Your task to perform on an android device: Go to Google Image 0: 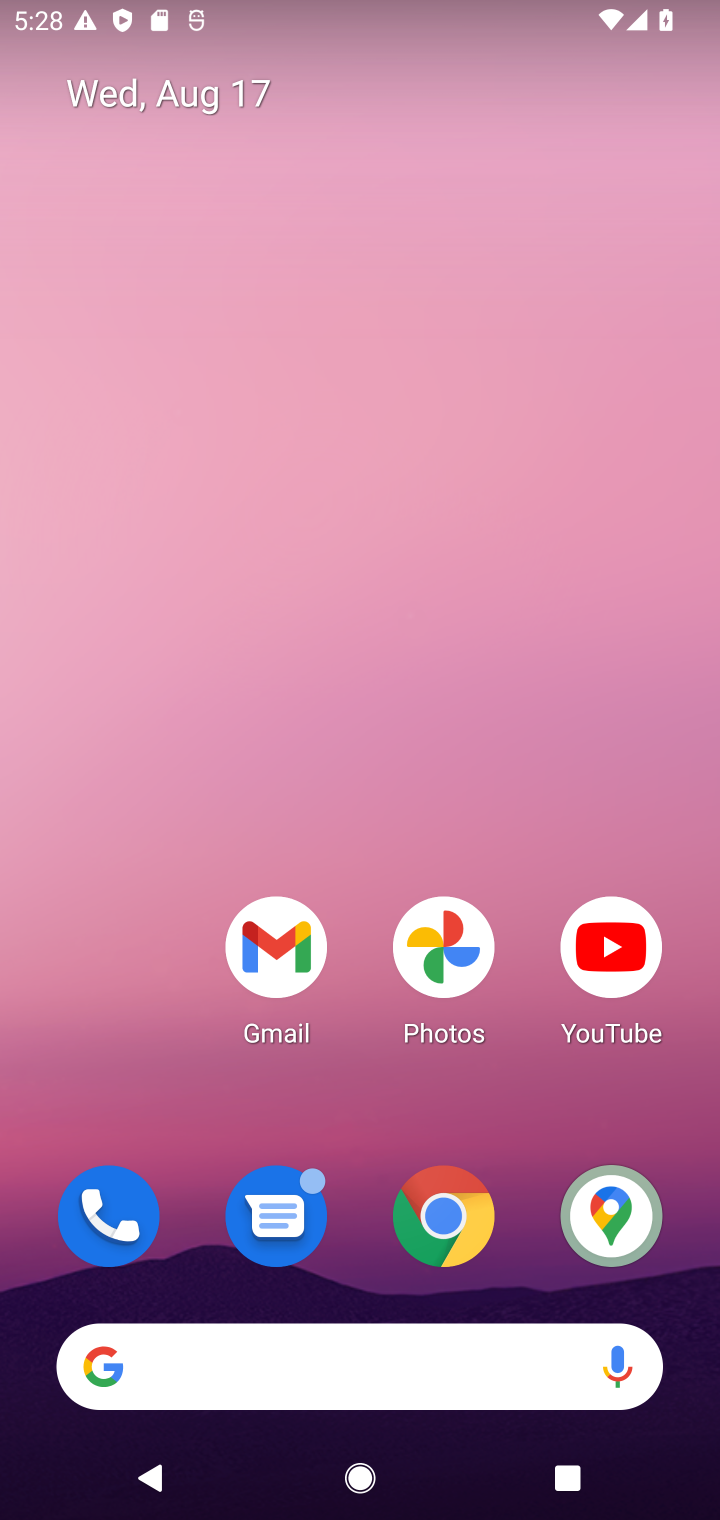
Step 0: drag from (337, 1096) to (248, 3)
Your task to perform on an android device: Go to Google Image 1: 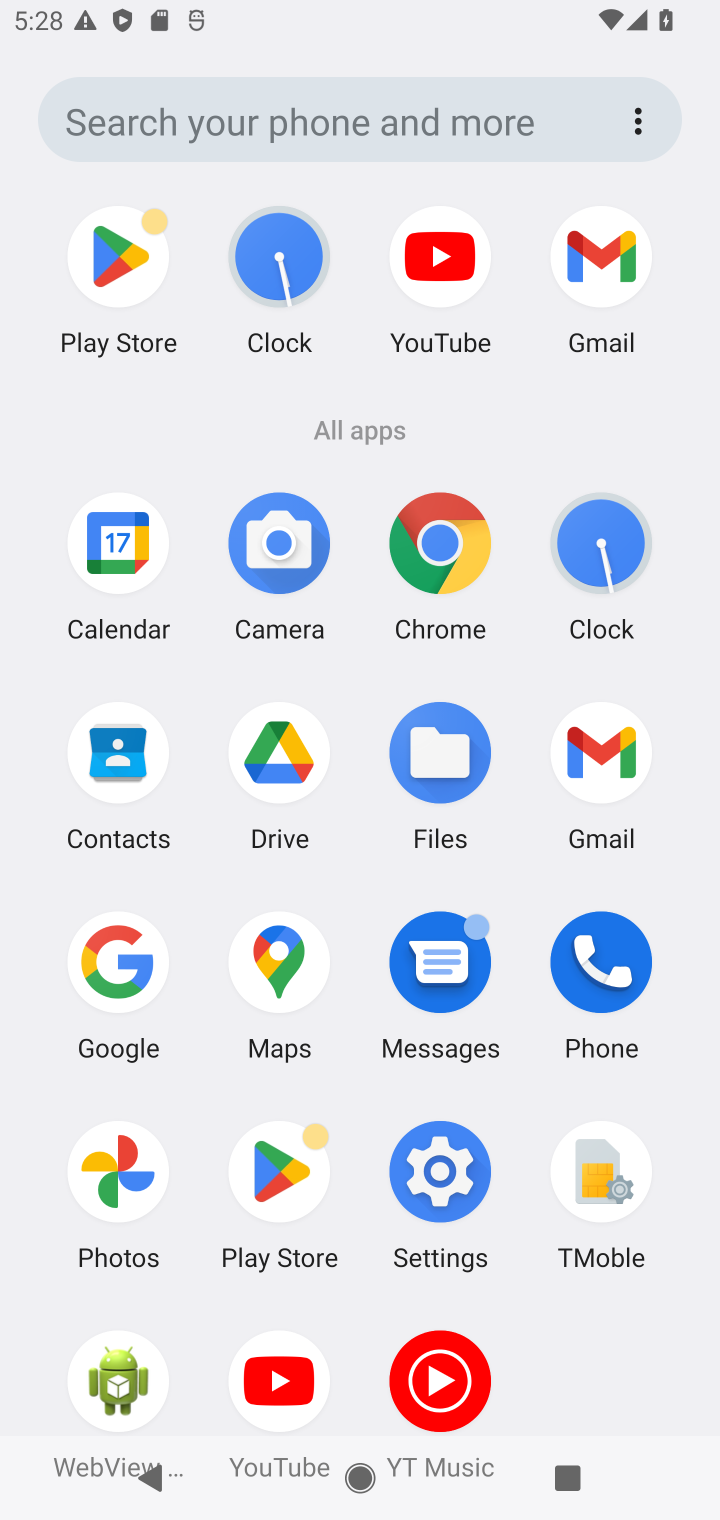
Step 1: click (106, 960)
Your task to perform on an android device: Go to Google Image 2: 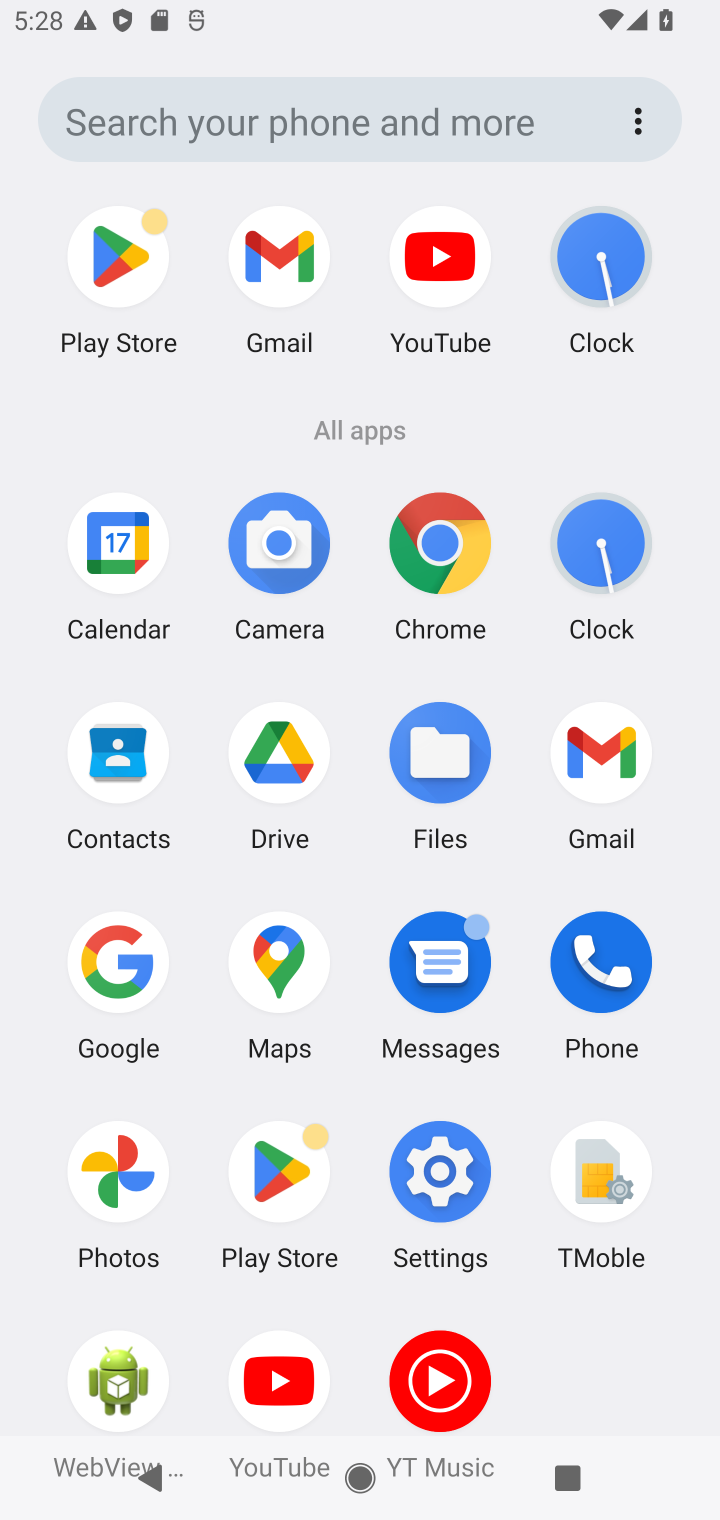
Step 2: click (95, 957)
Your task to perform on an android device: Go to Google Image 3: 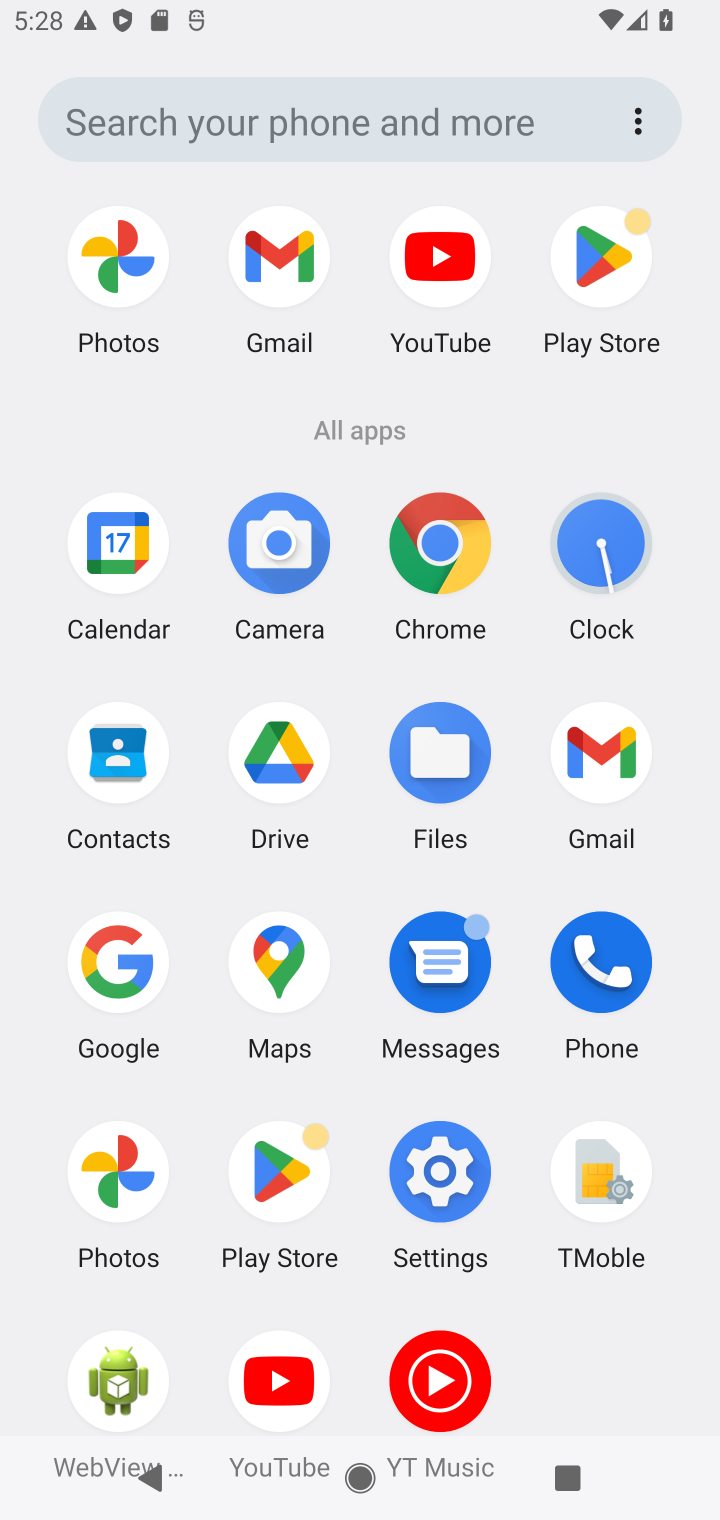
Step 3: click (108, 954)
Your task to perform on an android device: Go to Google Image 4: 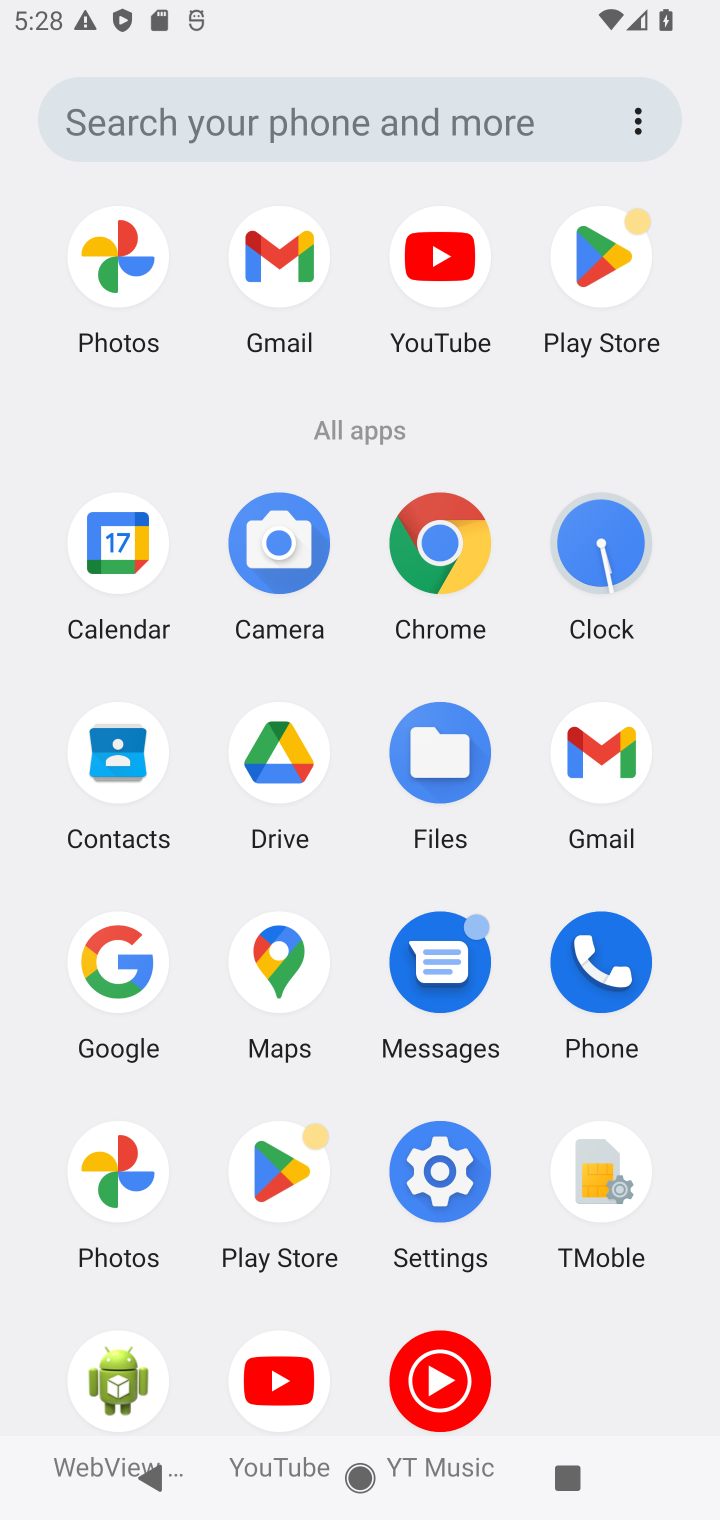
Step 4: click (108, 954)
Your task to perform on an android device: Go to Google Image 5: 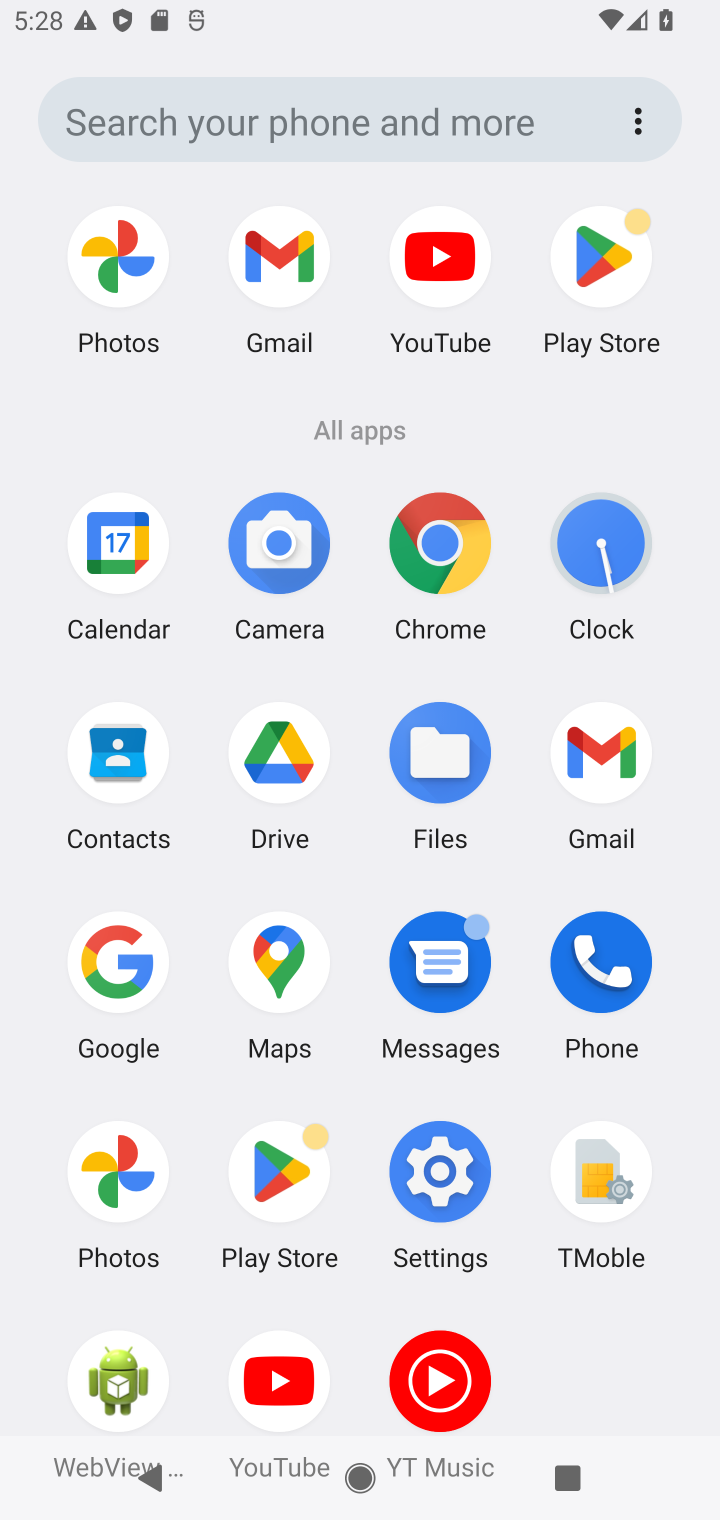
Step 5: click (108, 954)
Your task to perform on an android device: Go to Google Image 6: 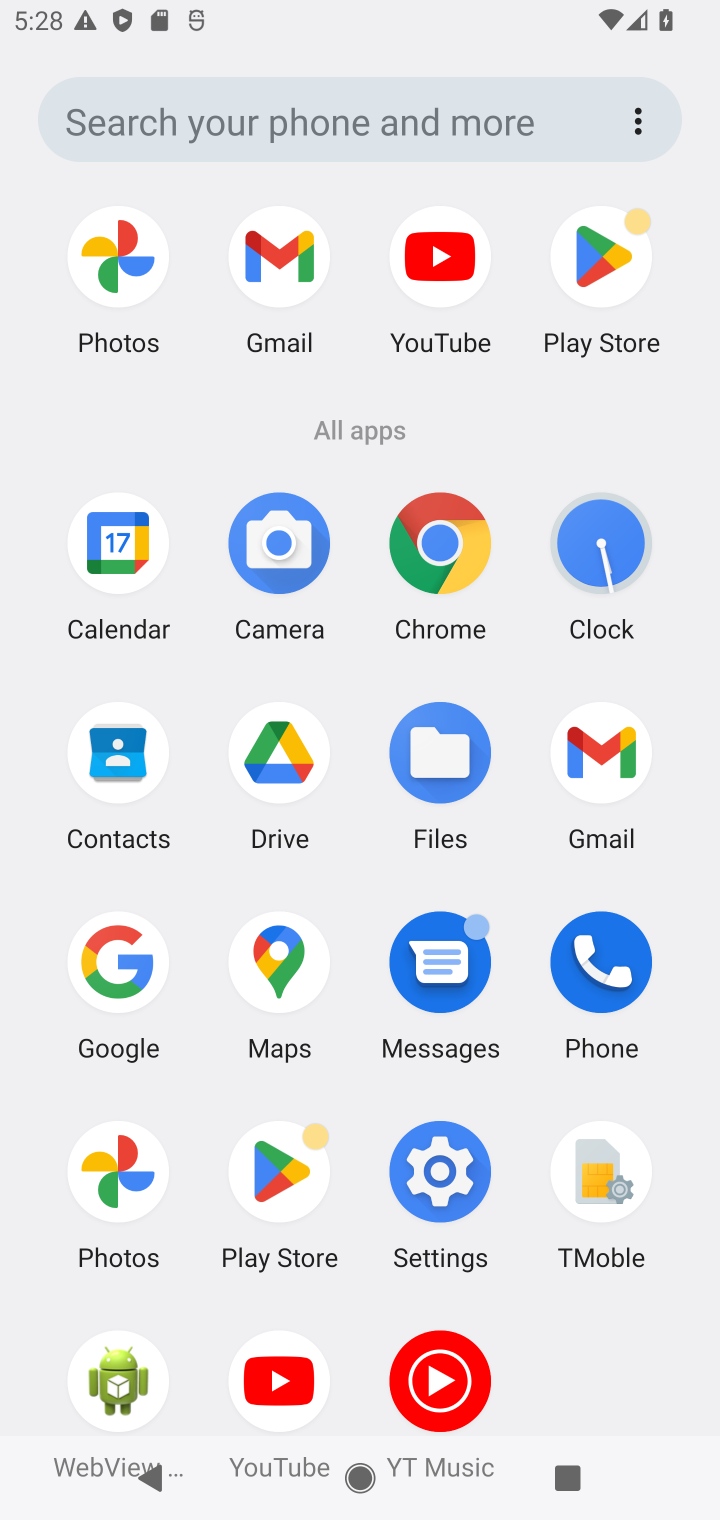
Step 6: click (108, 954)
Your task to perform on an android device: Go to Google Image 7: 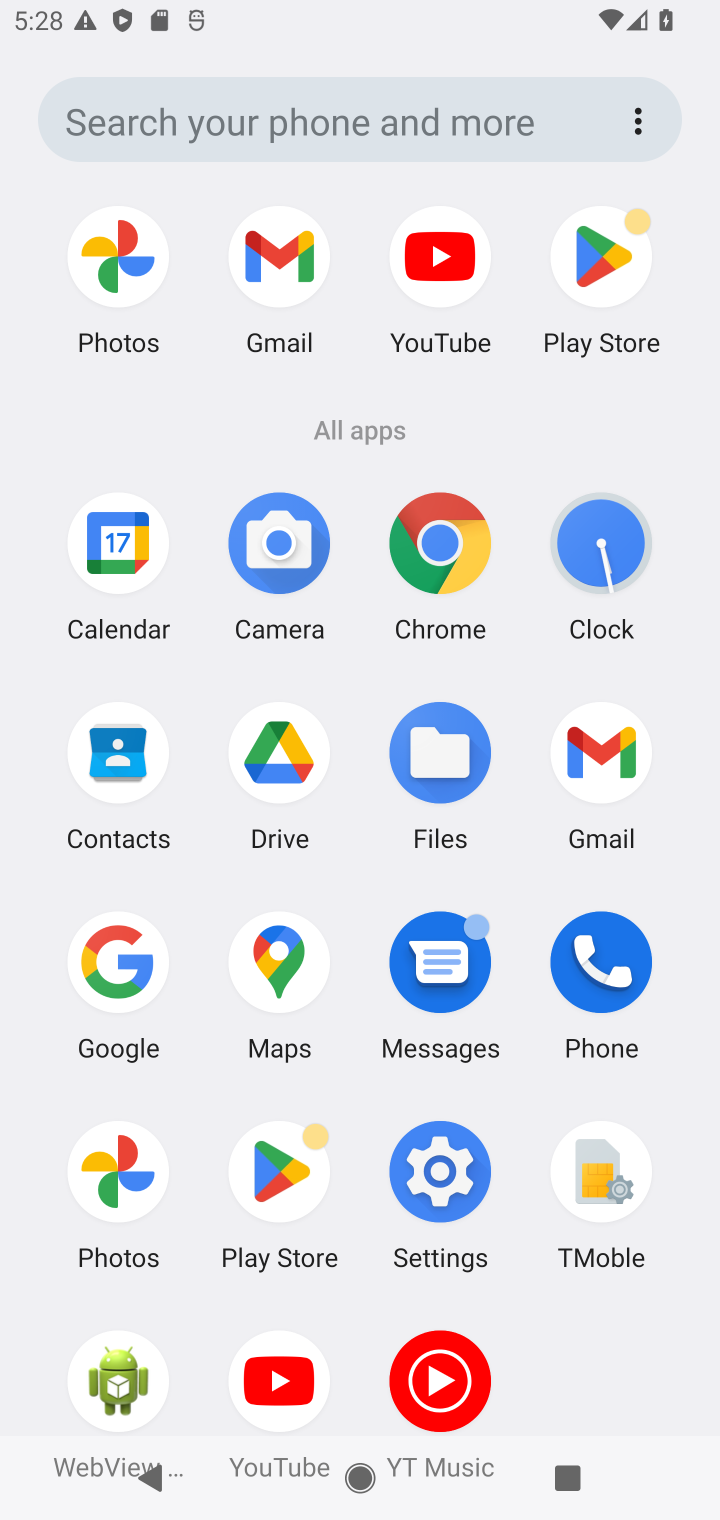
Step 7: click (108, 954)
Your task to perform on an android device: Go to Google Image 8: 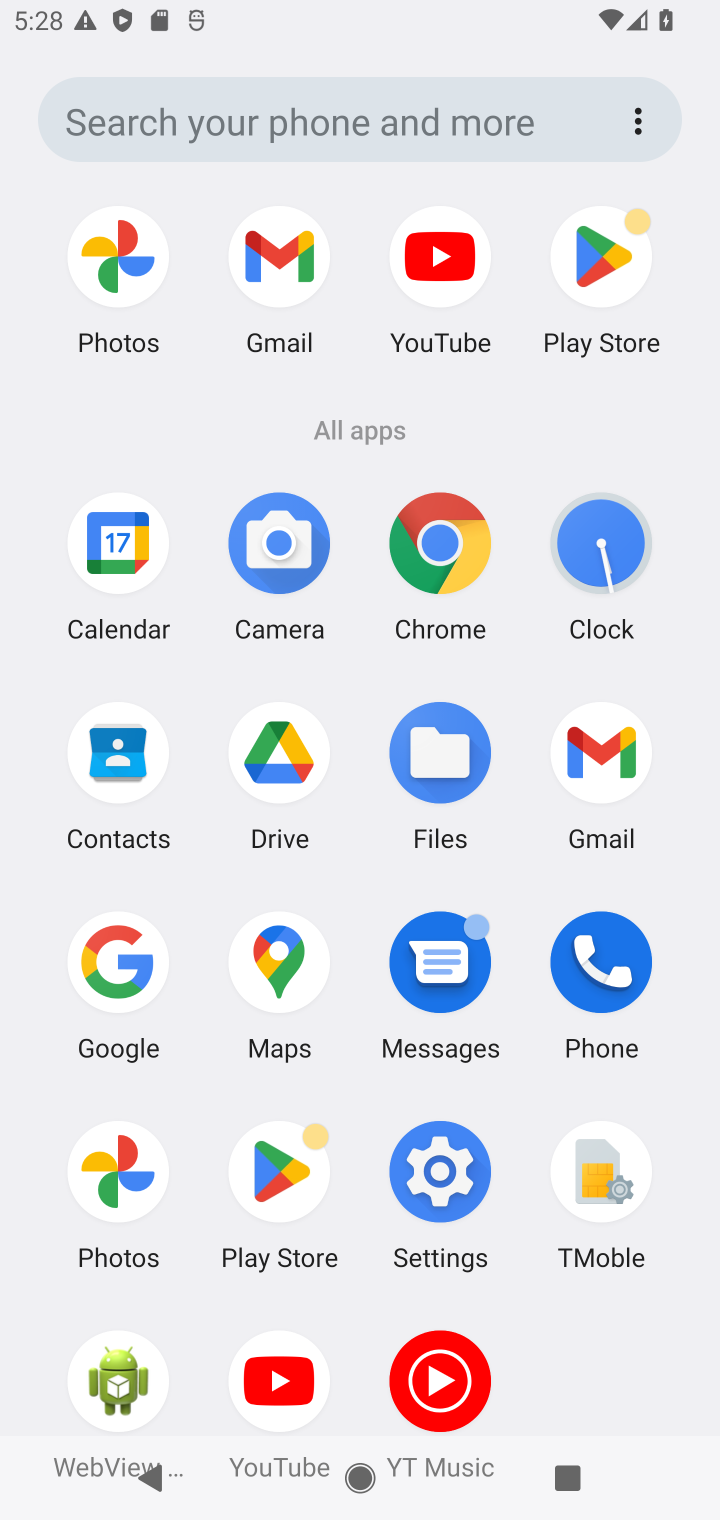
Step 8: click (120, 973)
Your task to perform on an android device: Go to Google Image 9: 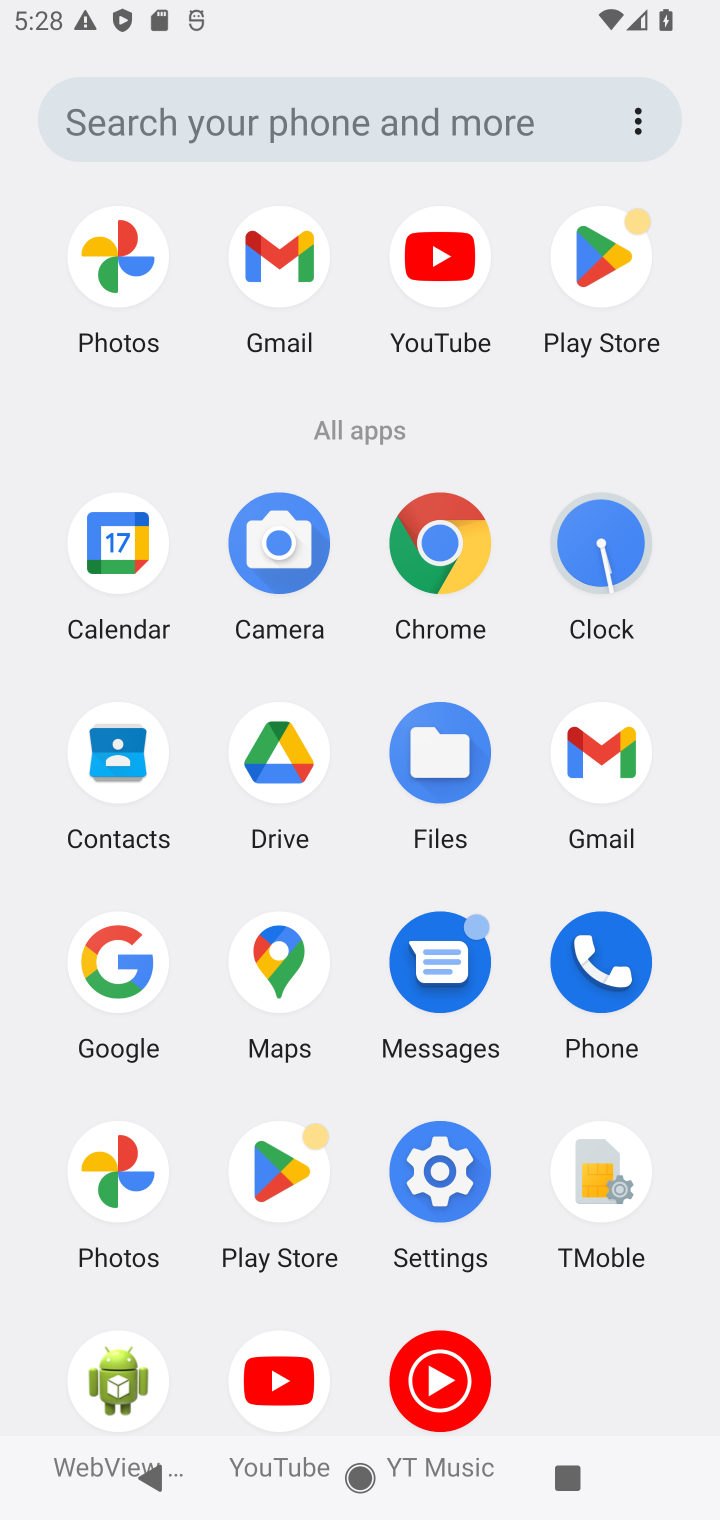
Step 9: click (120, 973)
Your task to perform on an android device: Go to Google Image 10: 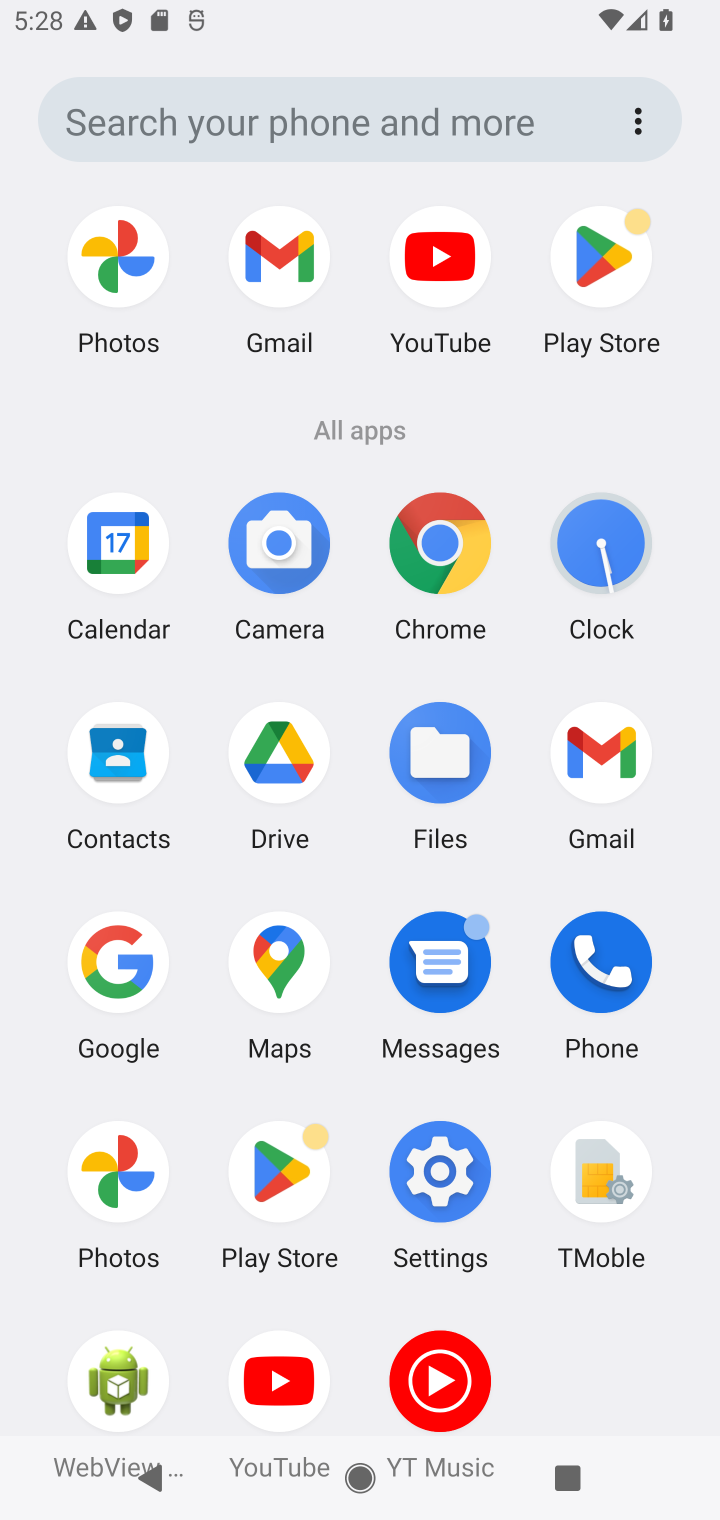
Step 10: click (113, 973)
Your task to perform on an android device: Go to Google Image 11: 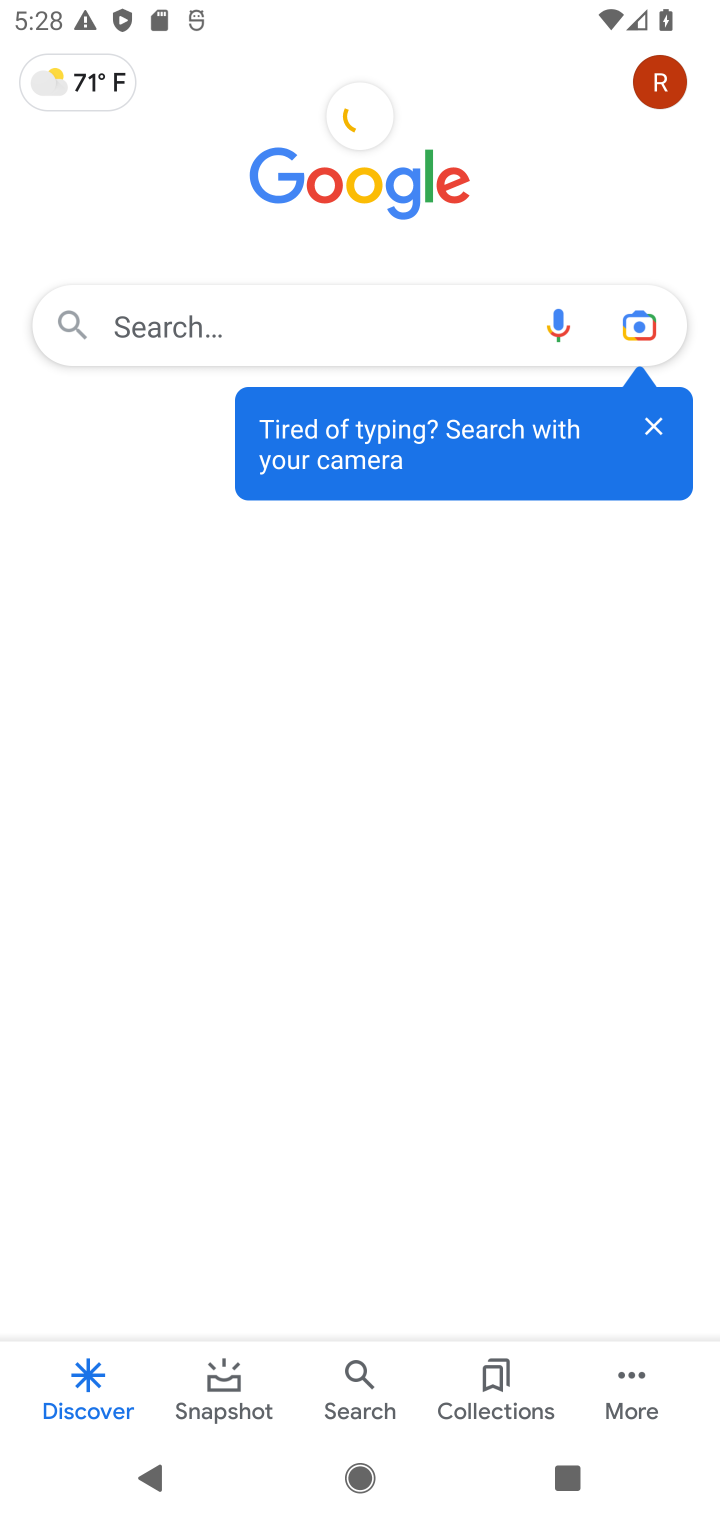
Step 11: task complete